Your task to perform on an android device: Open Chrome and go to the settings page Image 0: 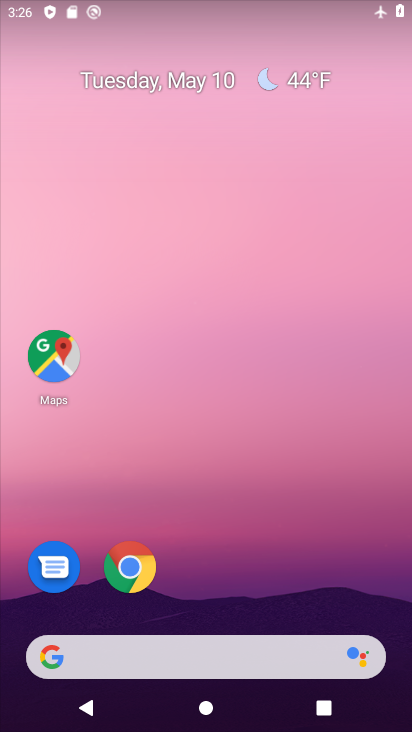
Step 0: click (129, 571)
Your task to perform on an android device: Open Chrome and go to the settings page Image 1: 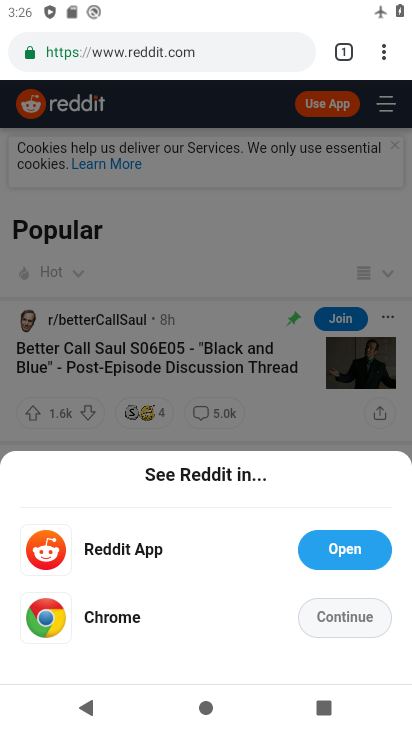
Step 1: click (382, 54)
Your task to perform on an android device: Open Chrome and go to the settings page Image 2: 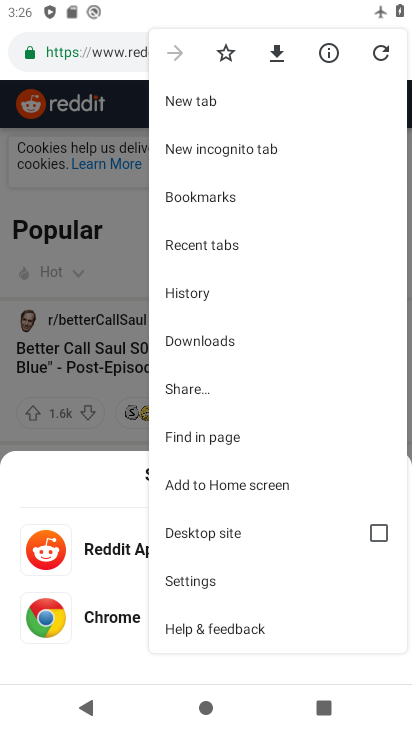
Step 2: click (193, 588)
Your task to perform on an android device: Open Chrome and go to the settings page Image 3: 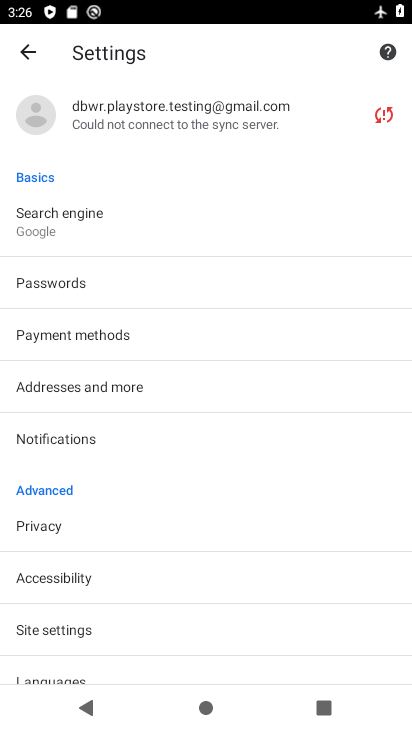
Step 3: task complete